Your task to perform on an android device: Search for "razer blade" on walmart, select the first entry, add it to the cart, then select checkout. Image 0: 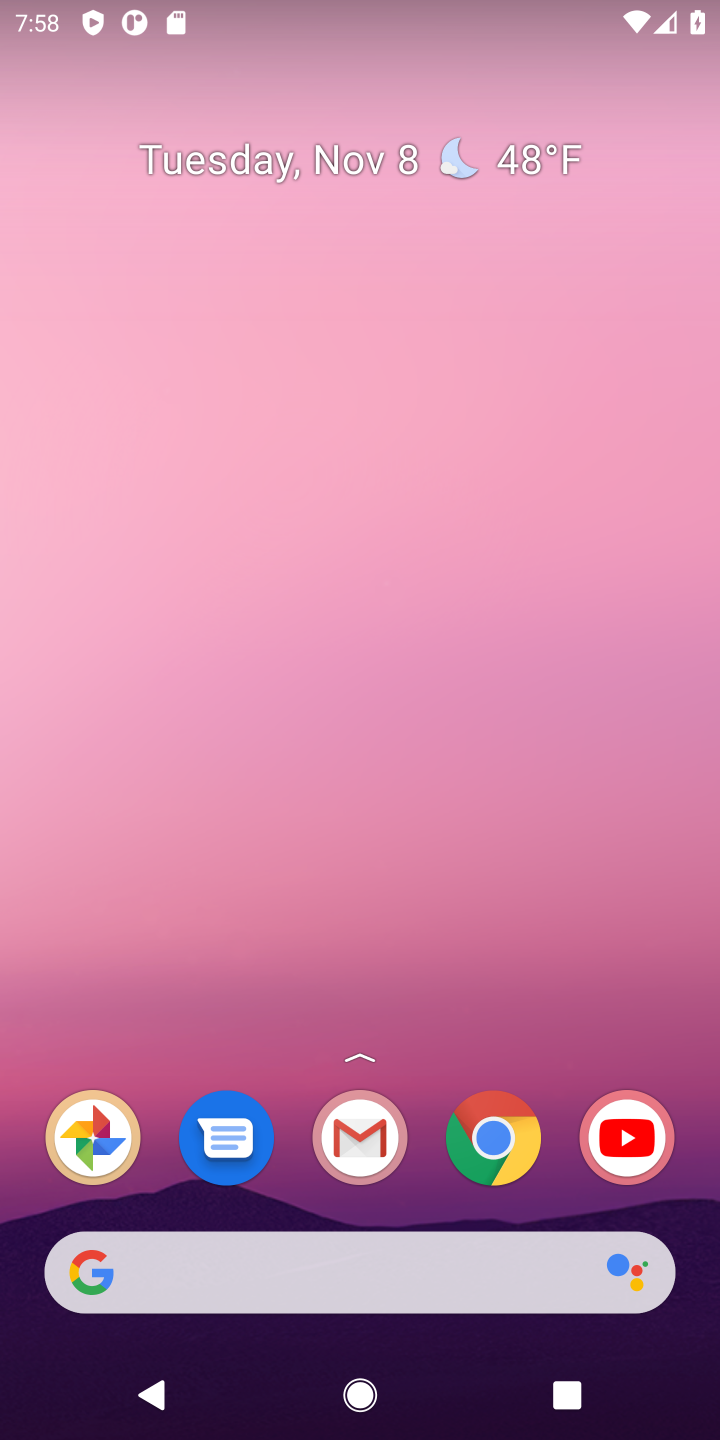
Step 0: click (505, 1147)
Your task to perform on an android device: Search for "razer blade" on walmart, select the first entry, add it to the cart, then select checkout. Image 1: 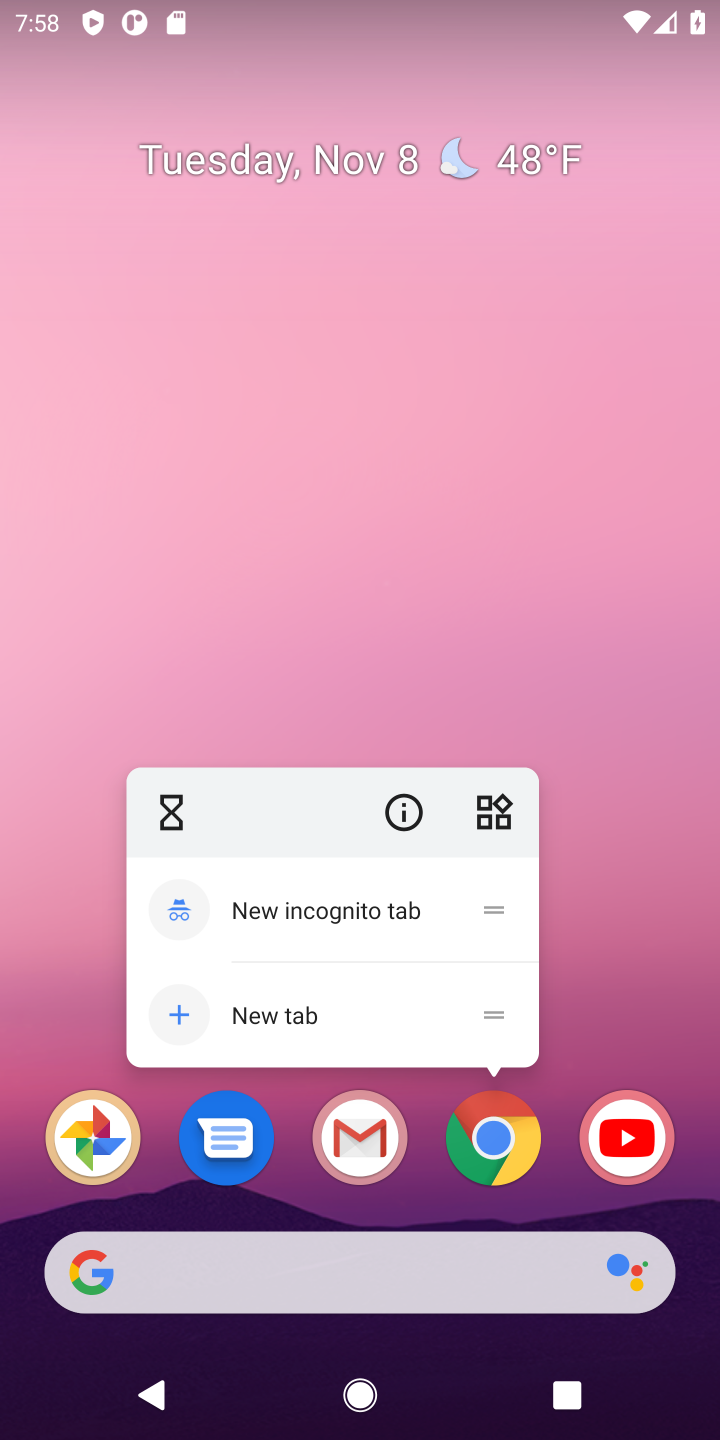
Step 1: click (500, 1134)
Your task to perform on an android device: Search for "razer blade" on walmart, select the first entry, add it to the cart, then select checkout. Image 2: 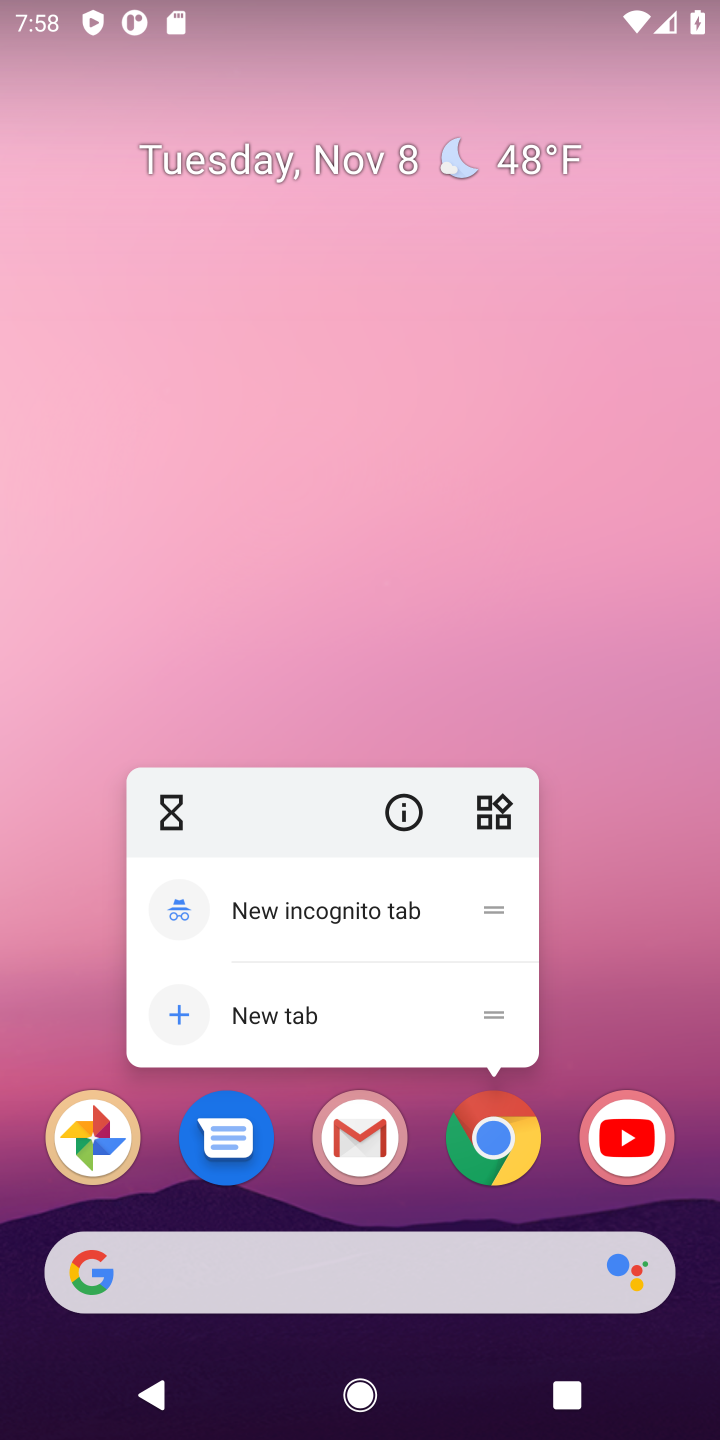
Step 2: click (500, 1139)
Your task to perform on an android device: Search for "razer blade" on walmart, select the first entry, add it to the cart, then select checkout. Image 3: 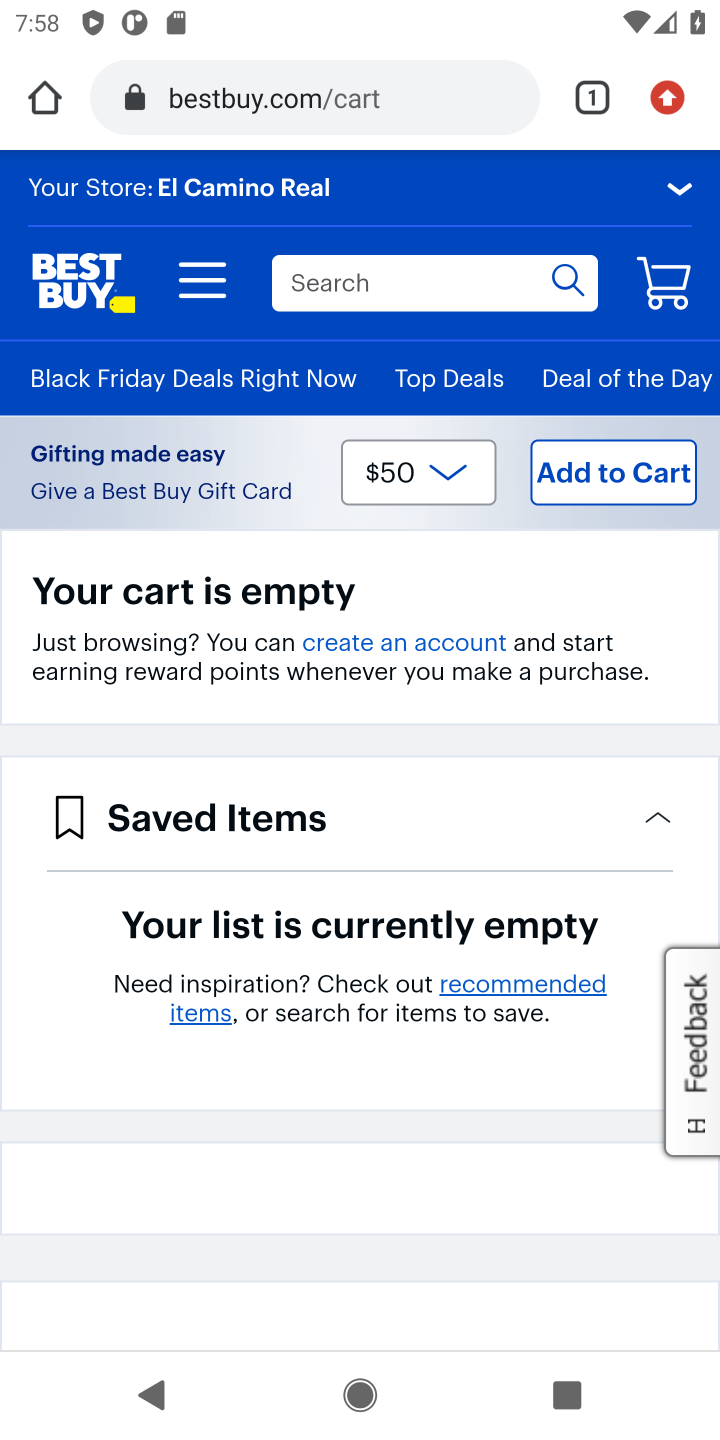
Step 3: click (318, 89)
Your task to perform on an android device: Search for "razer blade" on walmart, select the first entry, add it to the cart, then select checkout. Image 4: 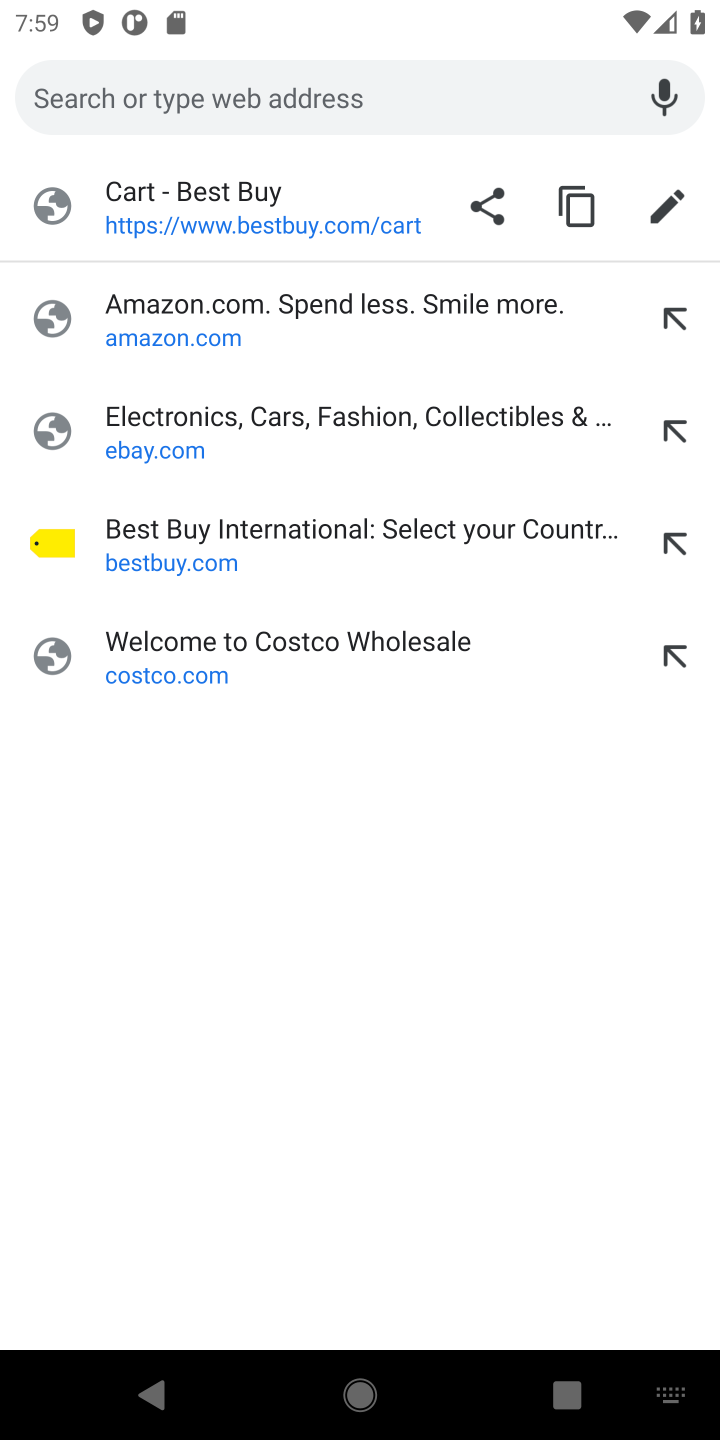
Step 4: type "walmart"
Your task to perform on an android device: Search for "razer blade" on walmart, select the first entry, add it to the cart, then select checkout. Image 5: 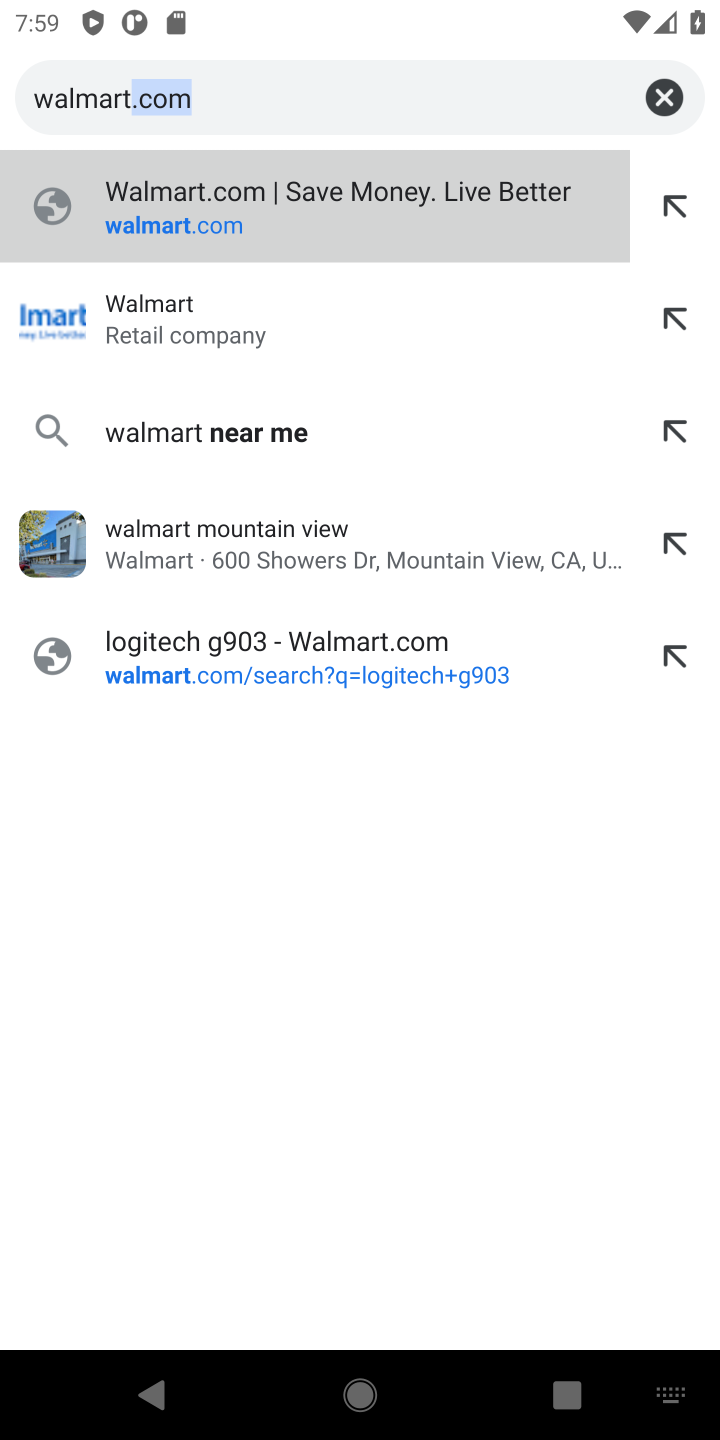
Step 5: press enter
Your task to perform on an android device: Search for "razer blade" on walmart, select the first entry, add it to the cart, then select checkout. Image 6: 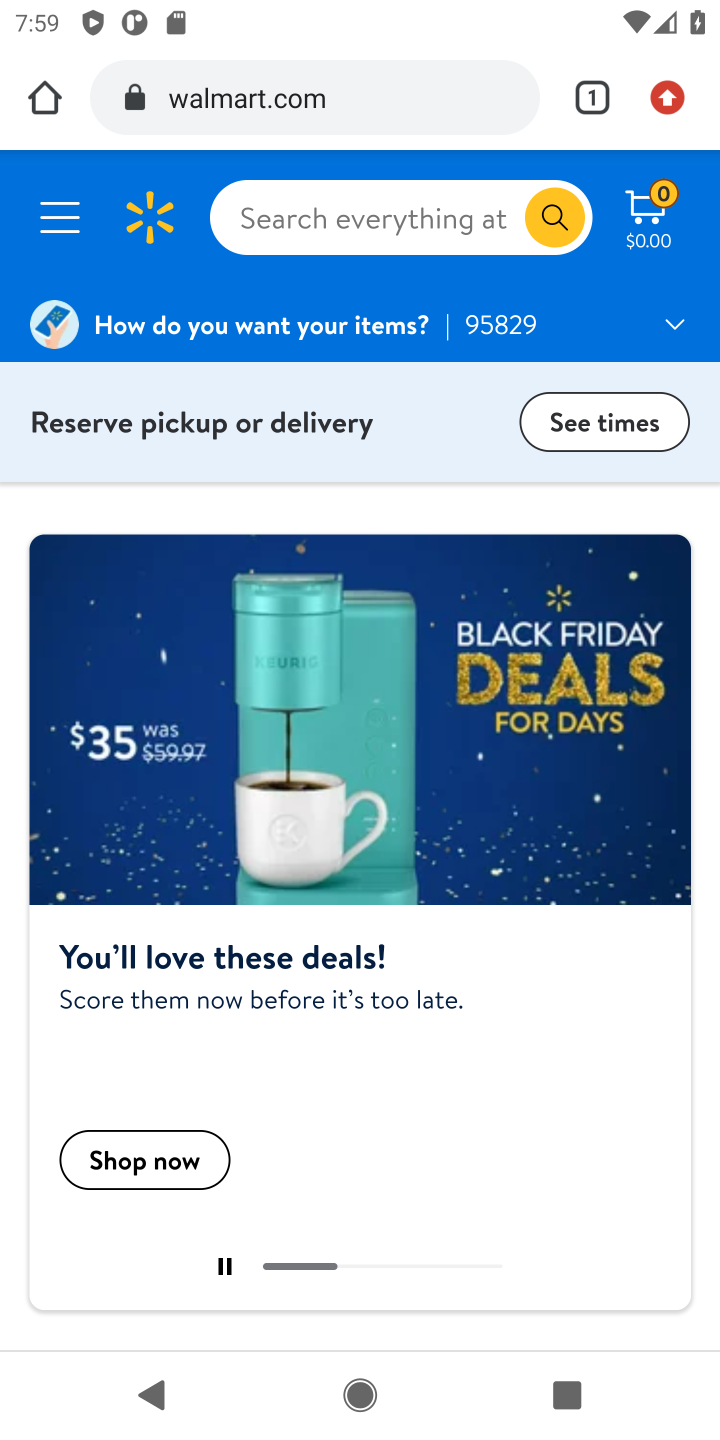
Step 6: click (345, 216)
Your task to perform on an android device: Search for "razer blade" on walmart, select the first entry, add it to the cart, then select checkout. Image 7: 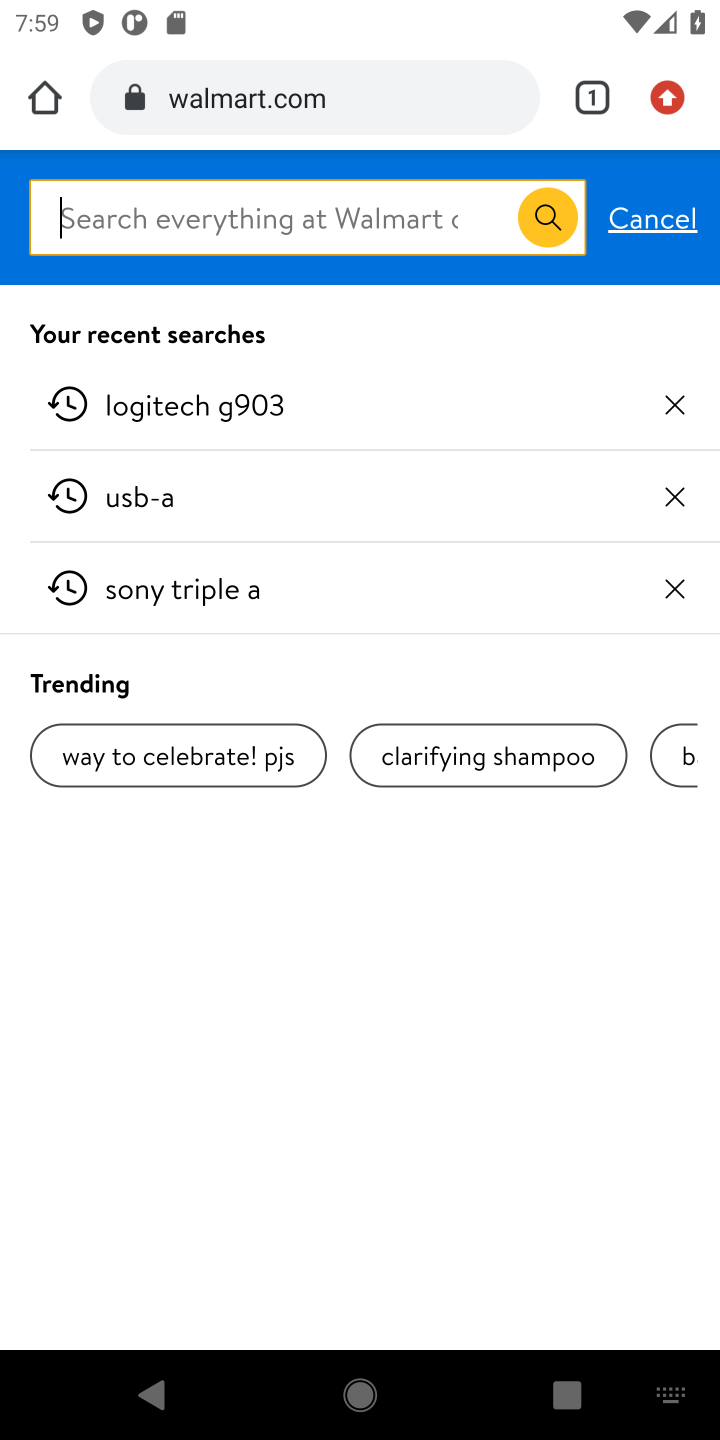
Step 7: type "razer blade"
Your task to perform on an android device: Search for "razer blade" on walmart, select the first entry, add it to the cart, then select checkout. Image 8: 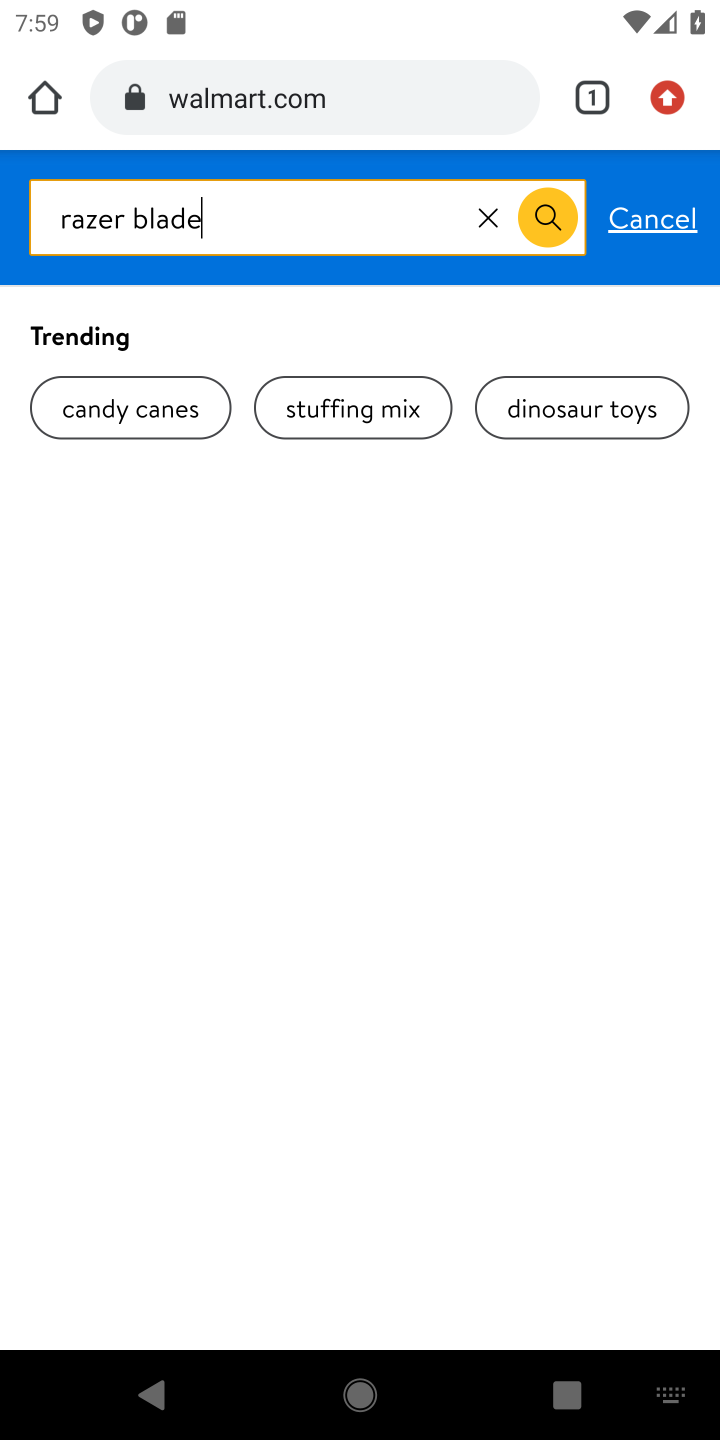
Step 8: press enter
Your task to perform on an android device: Search for "razer blade" on walmart, select the first entry, add it to the cart, then select checkout. Image 9: 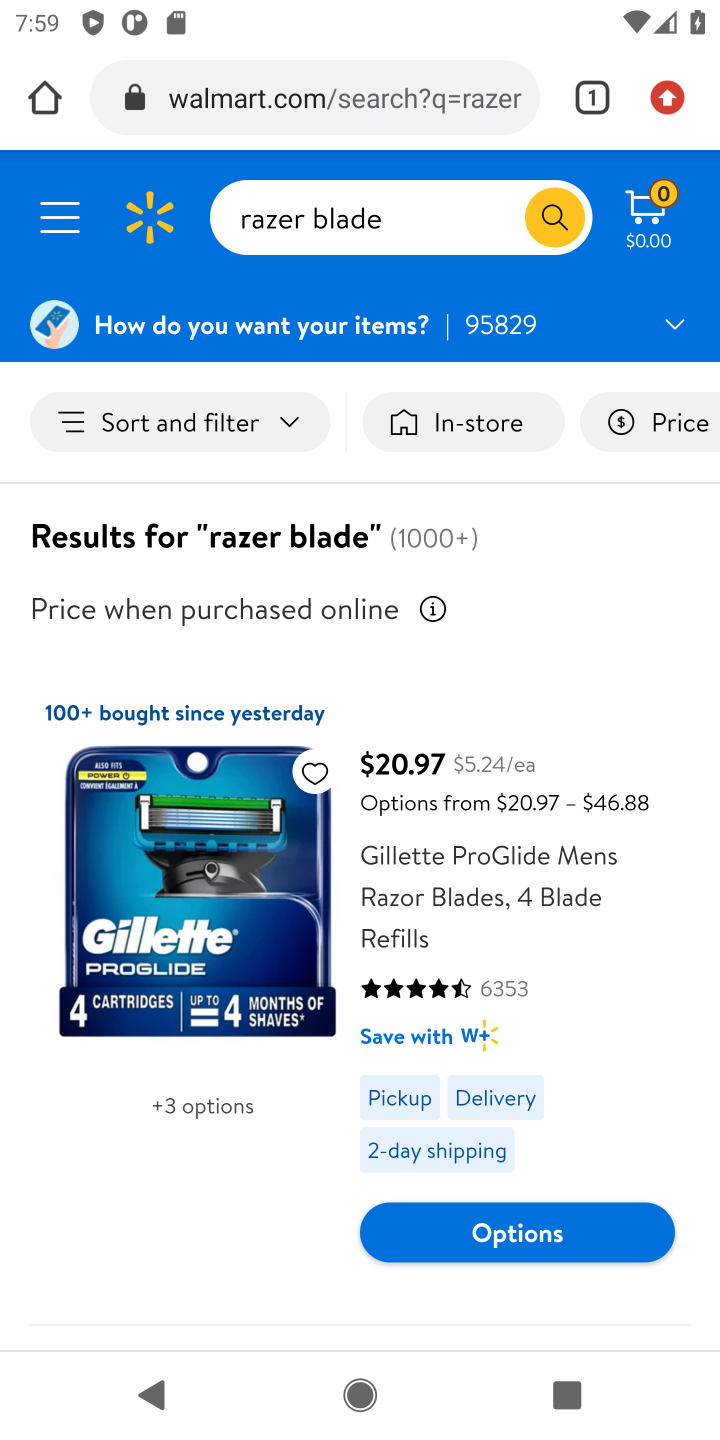
Step 9: drag from (463, 955) to (527, 653)
Your task to perform on an android device: Search for "razer blade" on walmart, select the first entry, add it to the cart, then select checkout. Image 10: 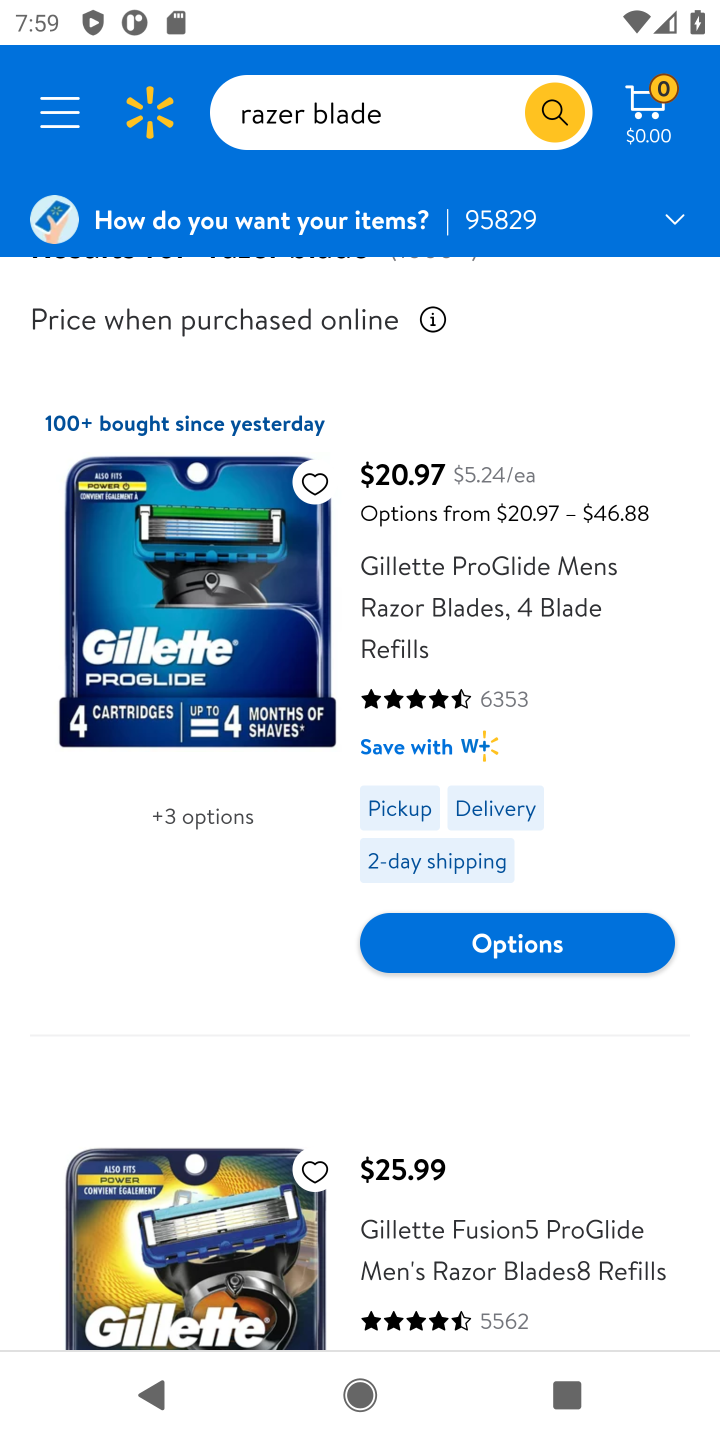
Step 10: click (424, 610)
Your task to perform on an android device: Search for "razer blade" on walmart, select the first entry, add it to the cart, then select checkout. Image 11: 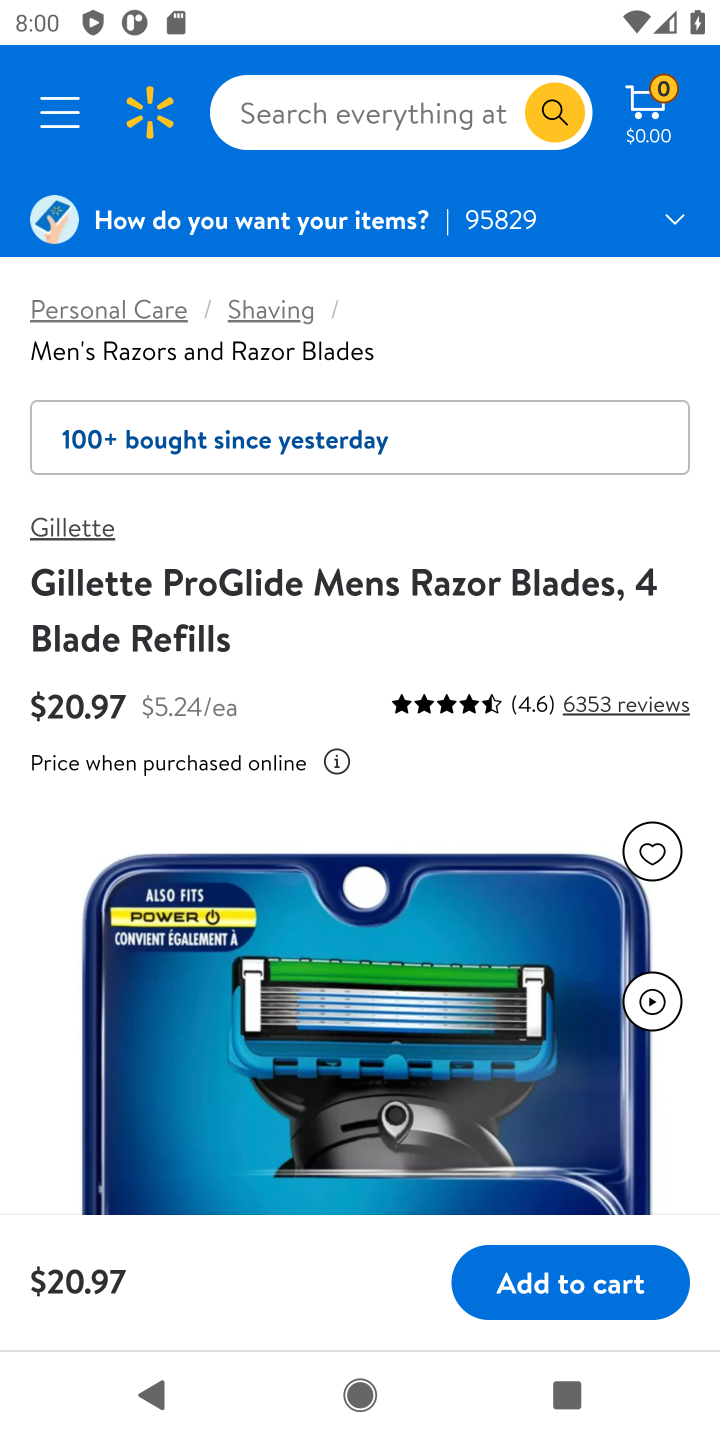
Step 11: drag from (213, 1204) to (332, 523)
Your task to perform on an android device: Search for "razer blade" on walmart, select the first entry, add it to the cart, then select checkout. Image 12: 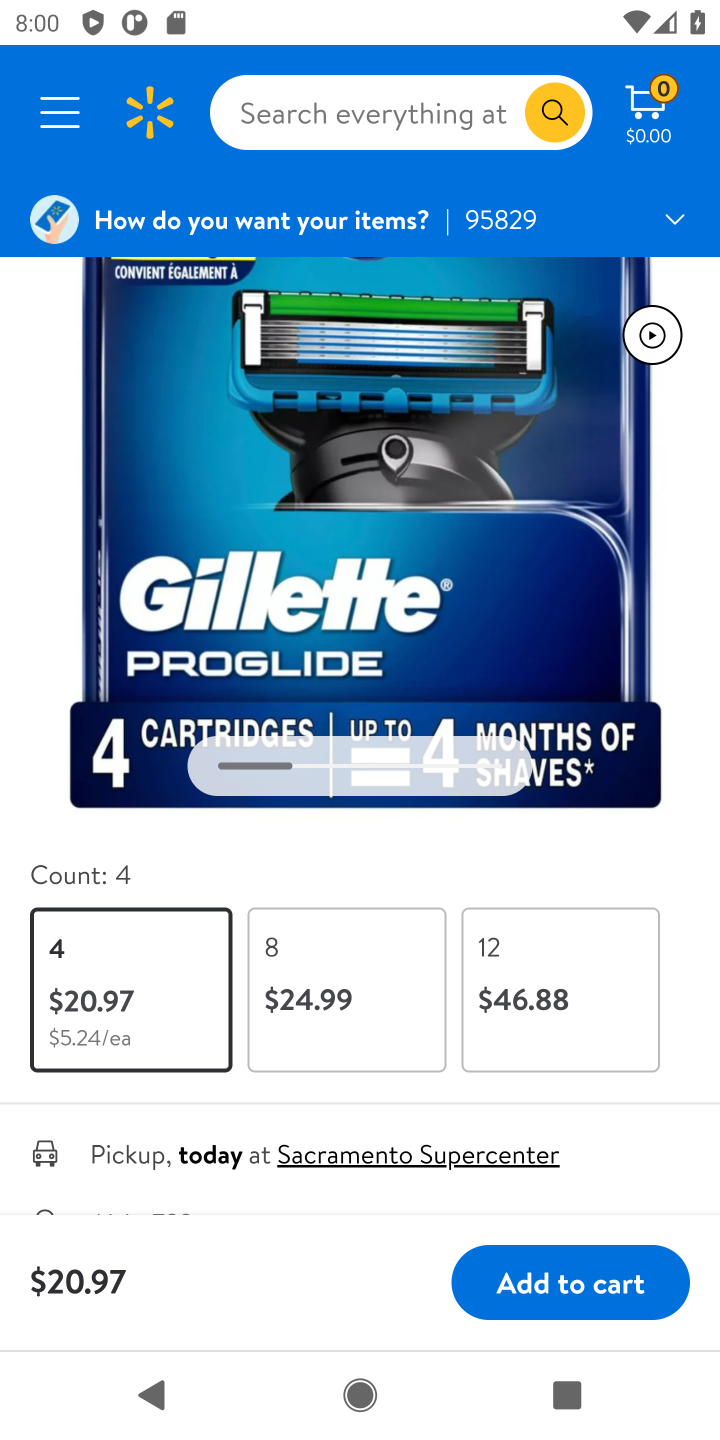
Step 12: click (582, 1284)
Your task to perform on an android device: Search for "razer blade" on walmart, select the first entry, add it to the cart, then select checkout. Image 13: 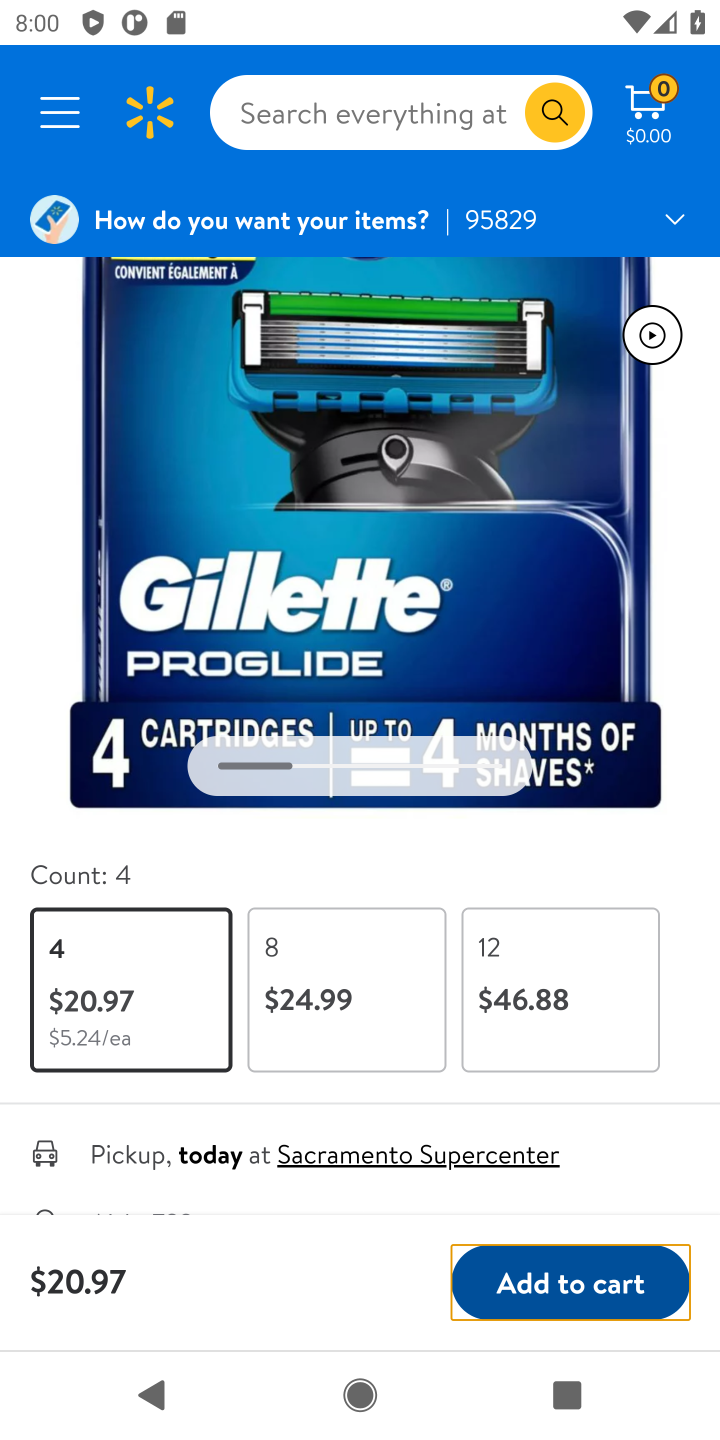
Step 13: click (586, 1290)
Your task to perform on an android device: Search for "razer blade" on walmart, select the first entry, add it to the cart, then select checkout. Image 14: 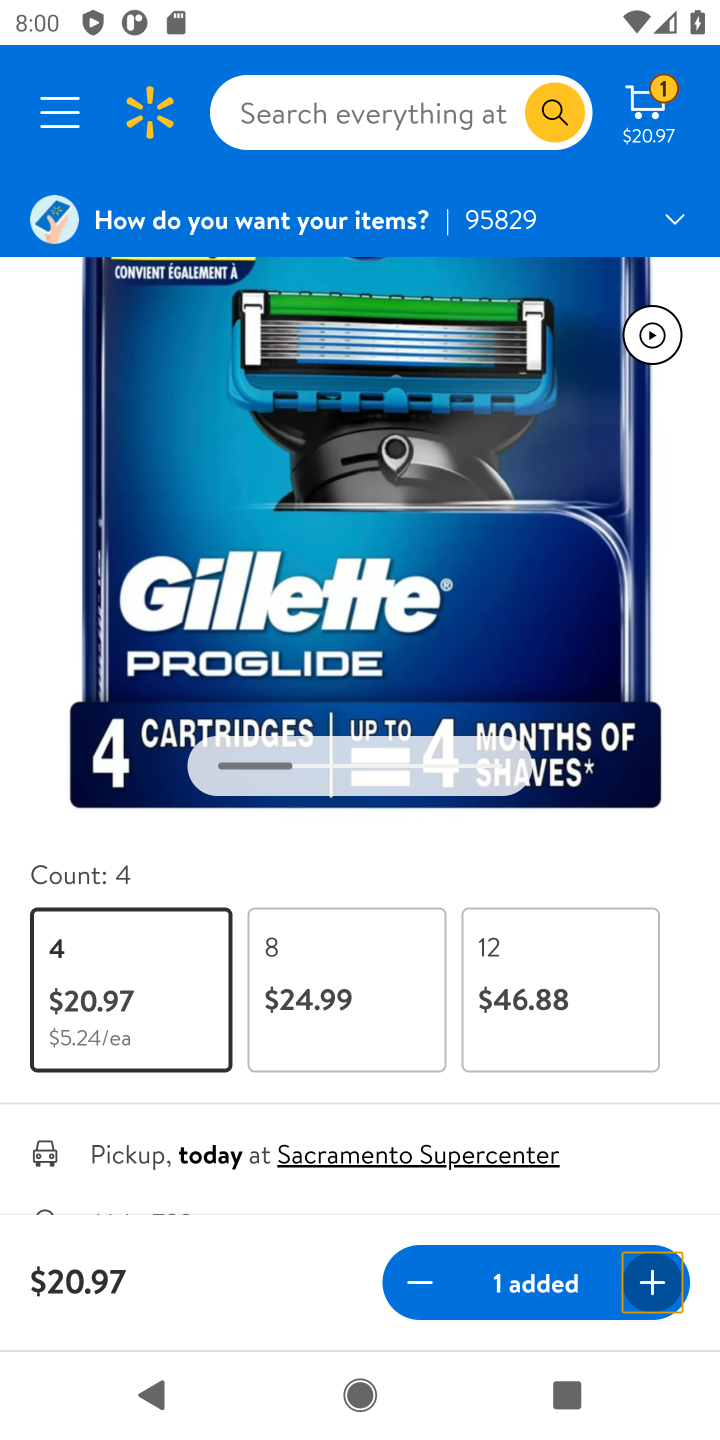
Step 14: click (645, 93)
Your task to perform on an android device: Search for "razer blade" on walmart, select the first entry, add it to the cart, then select checkout. Image 15: 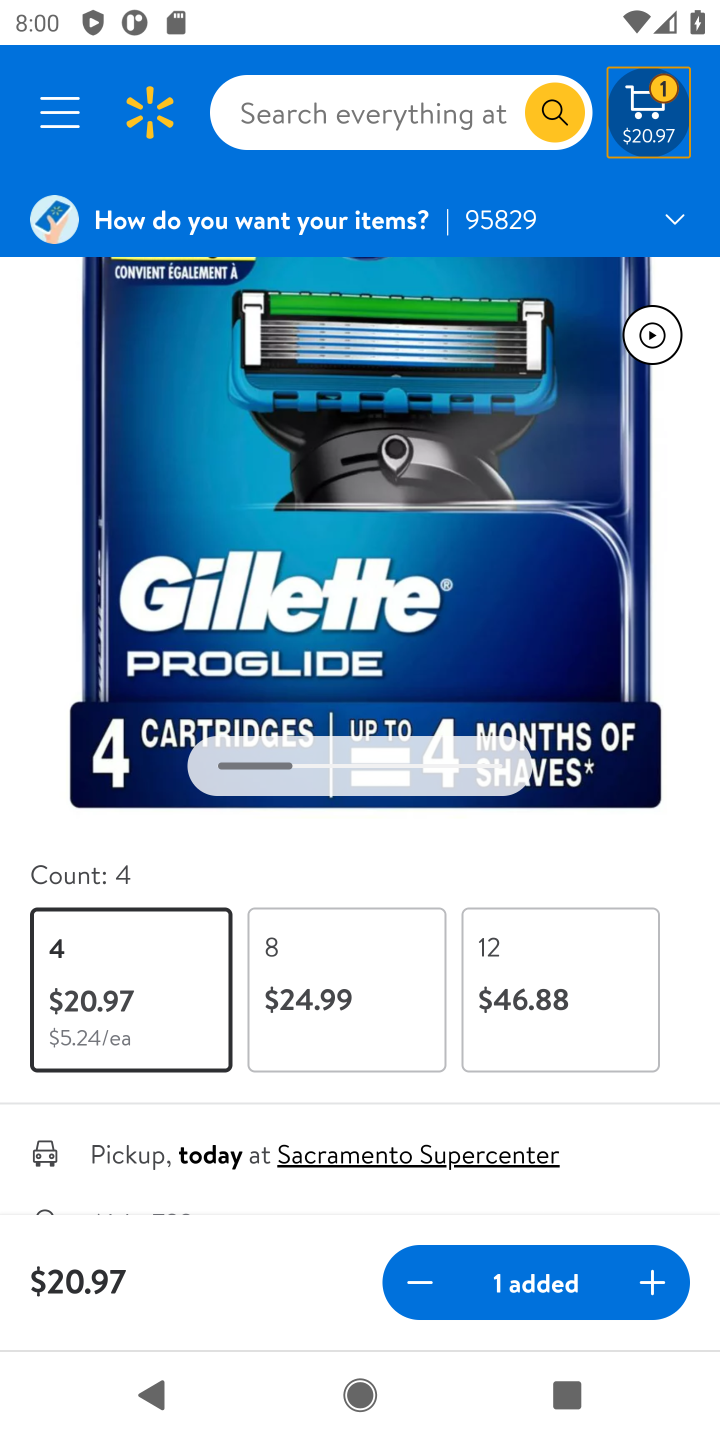
Step 15: click (664, 104)
Your task to perform on an android device: Search for "razer blade" on walmart, select the first entry, add it to the cart, then select checkout. Image 16: 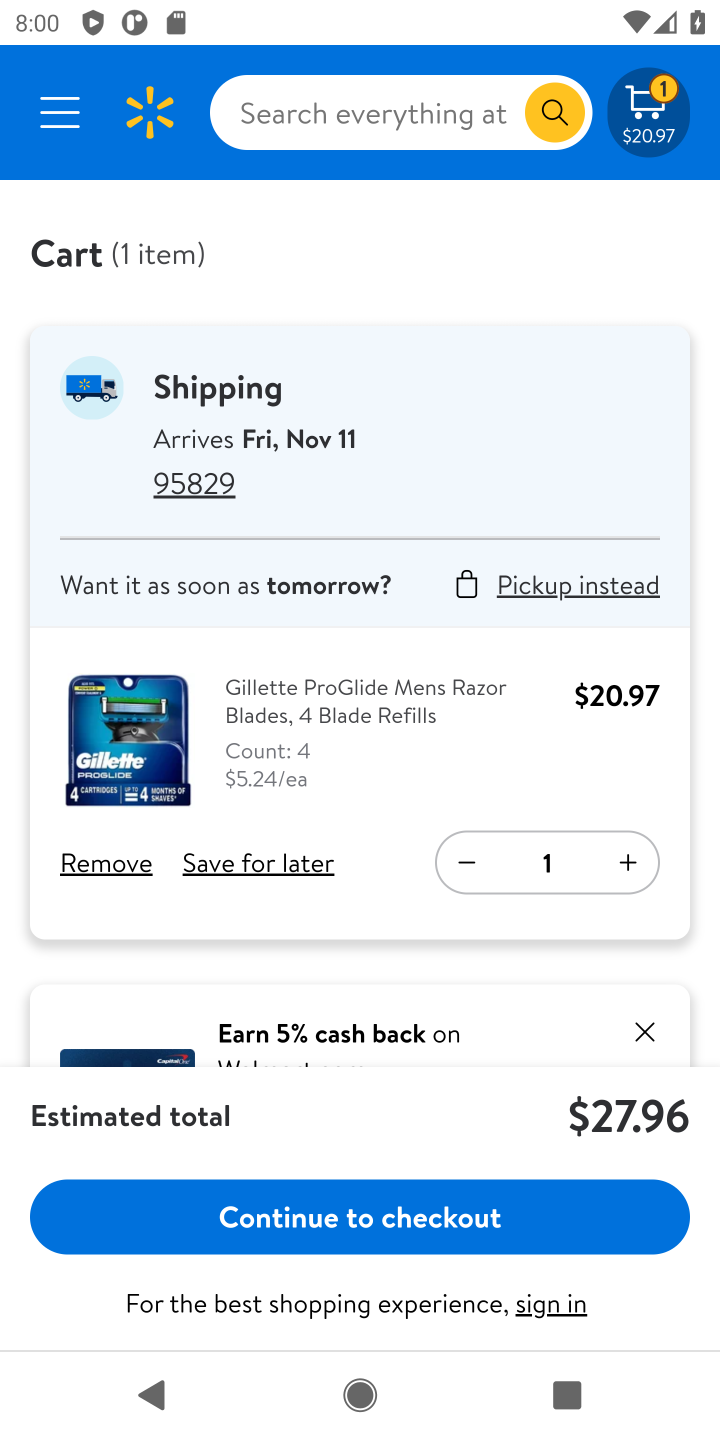
Step 16: click (410, 1205)
Your task to perform on an android device: Search for "razer blade" on walmart, select the first entry, add it to the cart, then select checkout. Image 17: 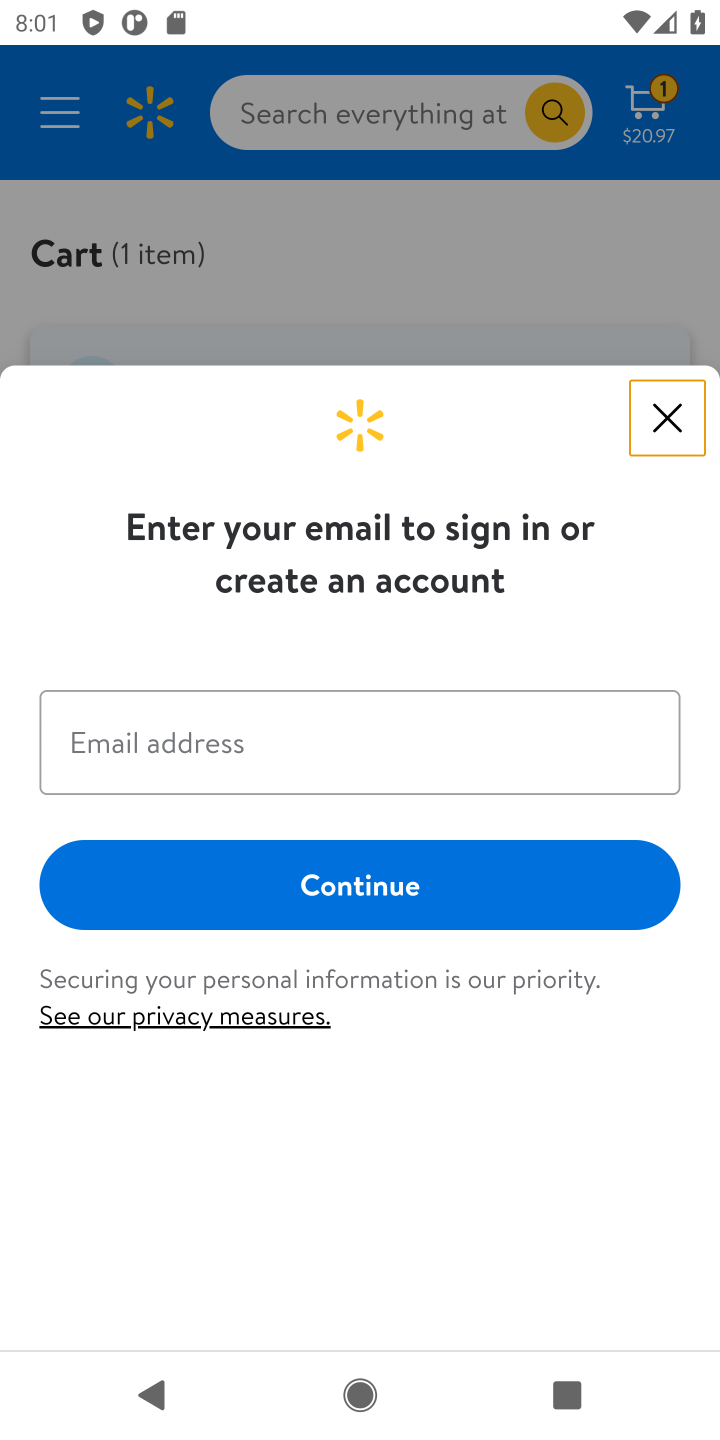
Step 17: task complete